Your task to perform on an android device: Open notification settings Image 0: 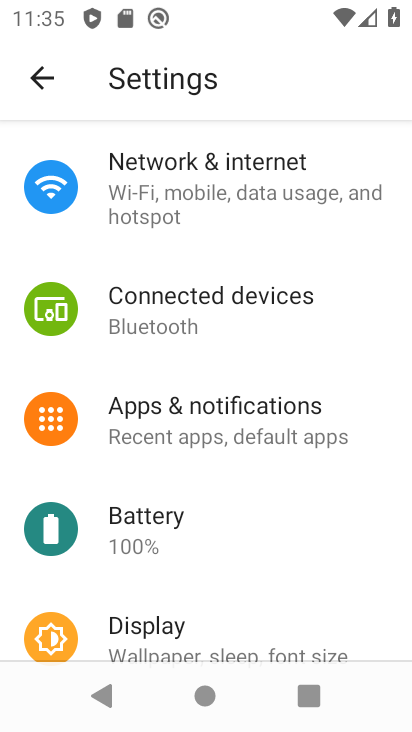
Step 0: press home button
Your task to perform on an android device: Open notification settings Image 1: 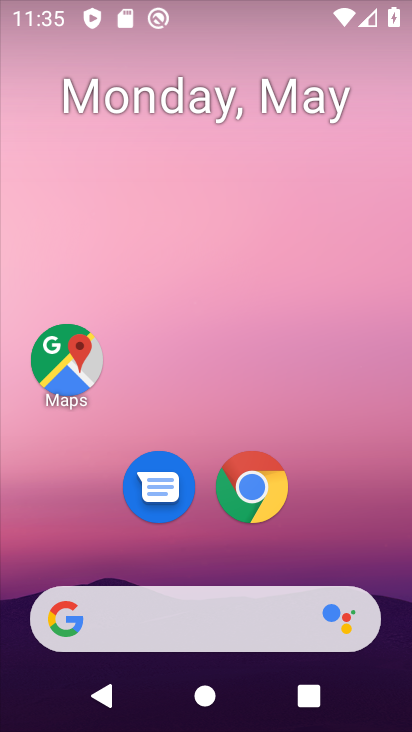
Step 1: drag from (15, 433) to (163, 176)
Your task to perform on an android device: Open notification settings Image 2: 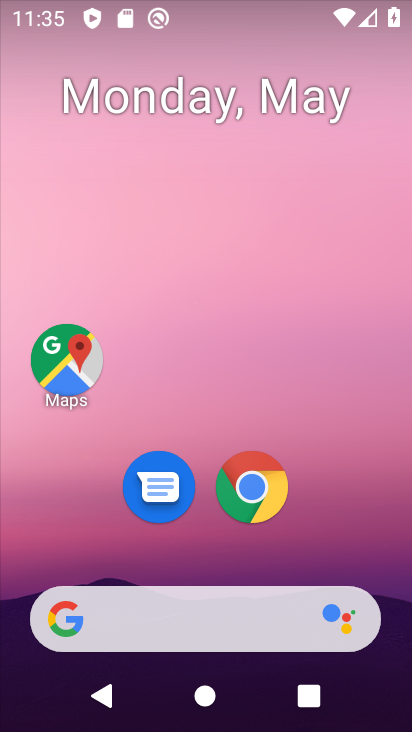
Step 2: drag from (60, 567) to (334, 120)
Your task to perform on an android device: Open notification settings Image 3: 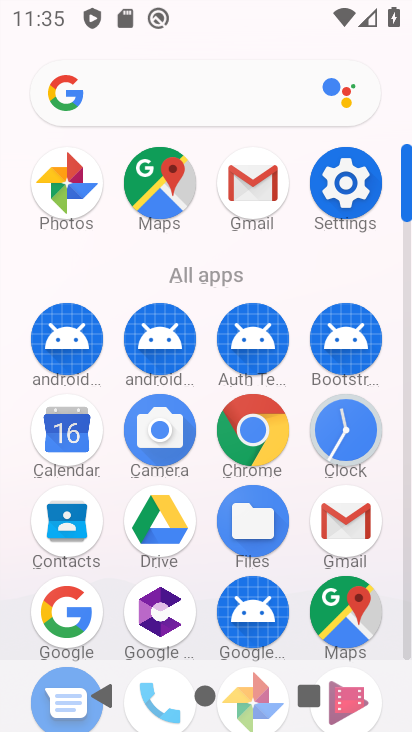
Step 3: click (358, 178)
Your task to perform on an android device: Open notification settings Image 4: 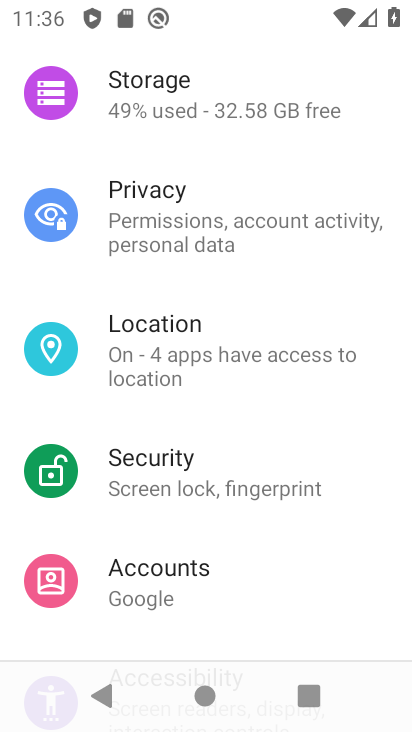
Step 4: drag from (109, 157) to (72, 591)
Your task to perform on an android device: Open notification settings Image 5: 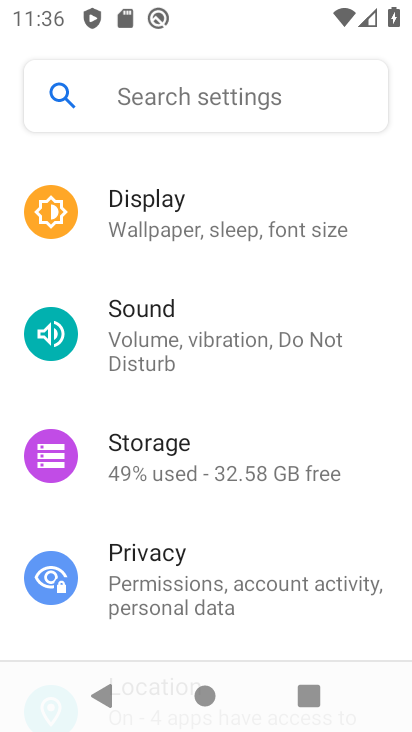
Step 5: drag from (358, 287) to (223, 614)
Your task to perform on an android device: Open notification settings Image 6: 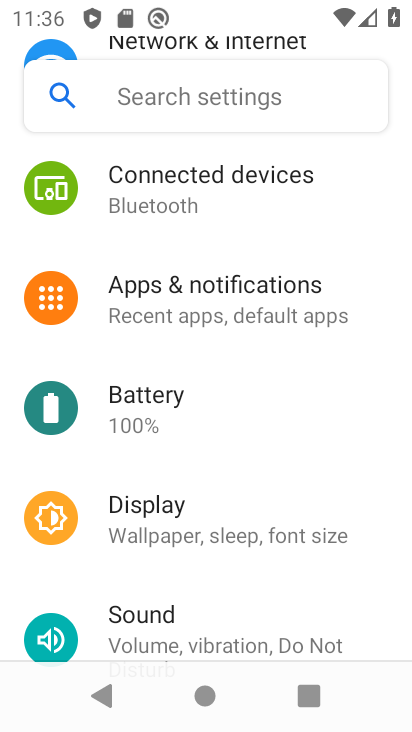
Step 6: click (205, 315)
Your task to perform on an android device: Open notification settings Image 7: 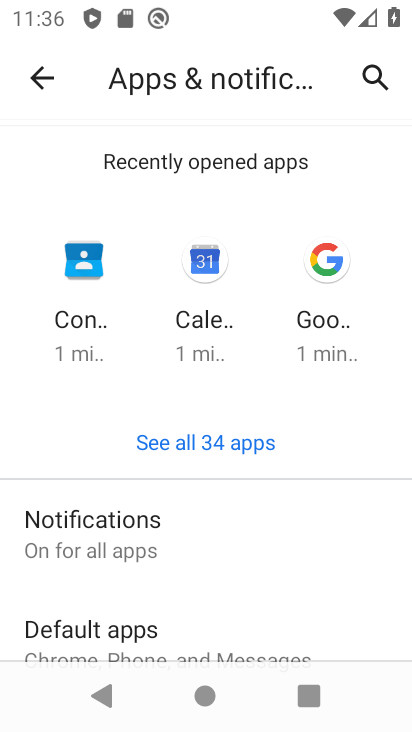
Step 7: click (136, 537)
Your task to perform on an android device: Open notification settings Image 8: 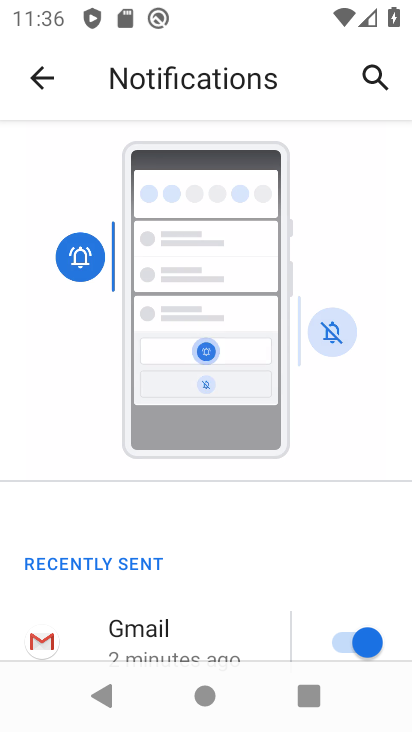
Step 8: task complete